Your task to perform on an android device: Open eBay Image 0: 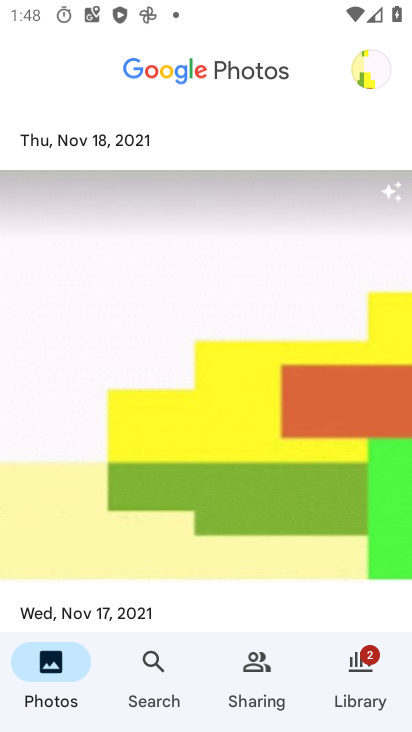
Step 0: press home button
Your task to perform on an android device: Open eBay Image 1: 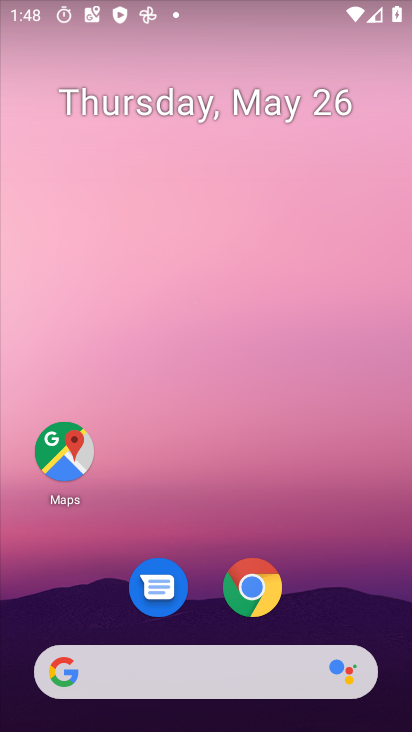
Step 1: drag from (361, 630) to (385, 282)
Your task to perform on an android device: Open eBay Image 2: 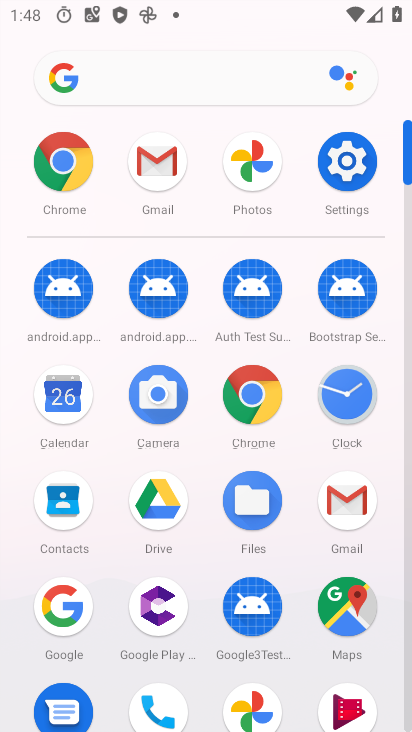
Step 2: click (266, 396)
Your task to perform on an android device: Open eBay Image 3: 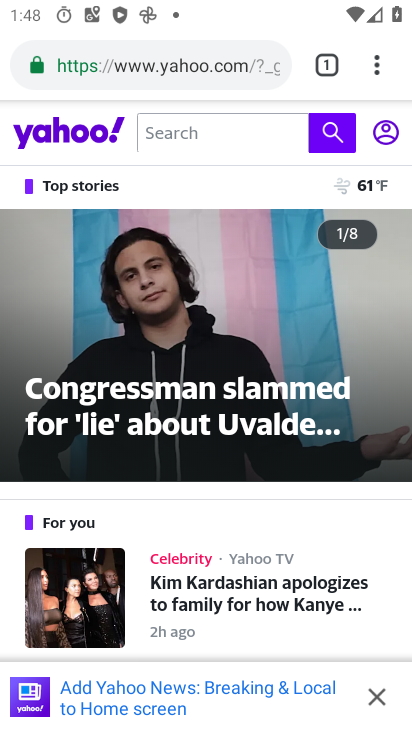
Step 3: click (215, 72)
Your task to perform on an android device: Open eBay Image 4: 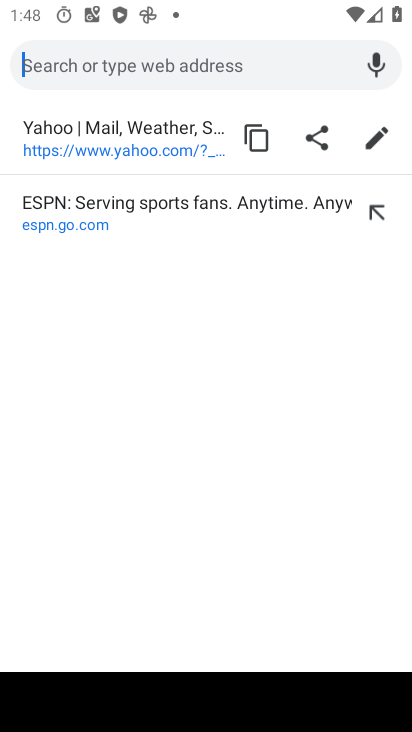
Step 4: type "ebay"
Your task to perform on an android device: Open eBay Image 5: 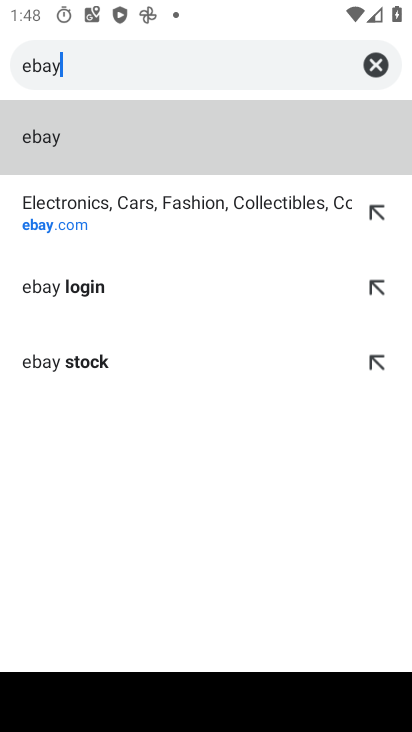
Step 5: click (163, 196)
Your task to perform on an android device: Open eBay Image 6: 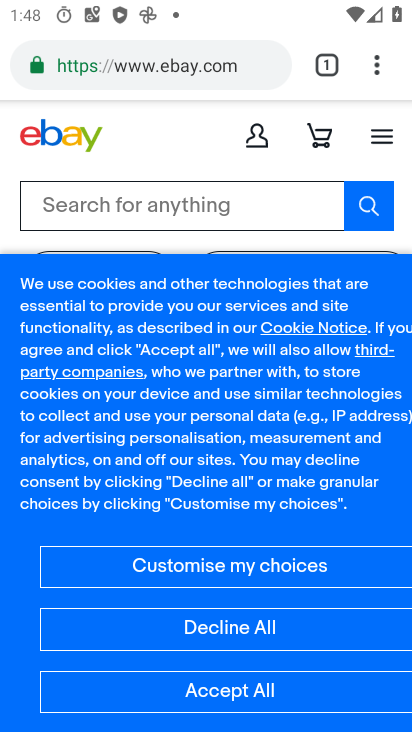
Step 6: task complete